Your task to perform on an android device: Clear the shopping cart on newegg.com. Add corsair k70 to the cart on newegg.com, then select checkout. Image 0: 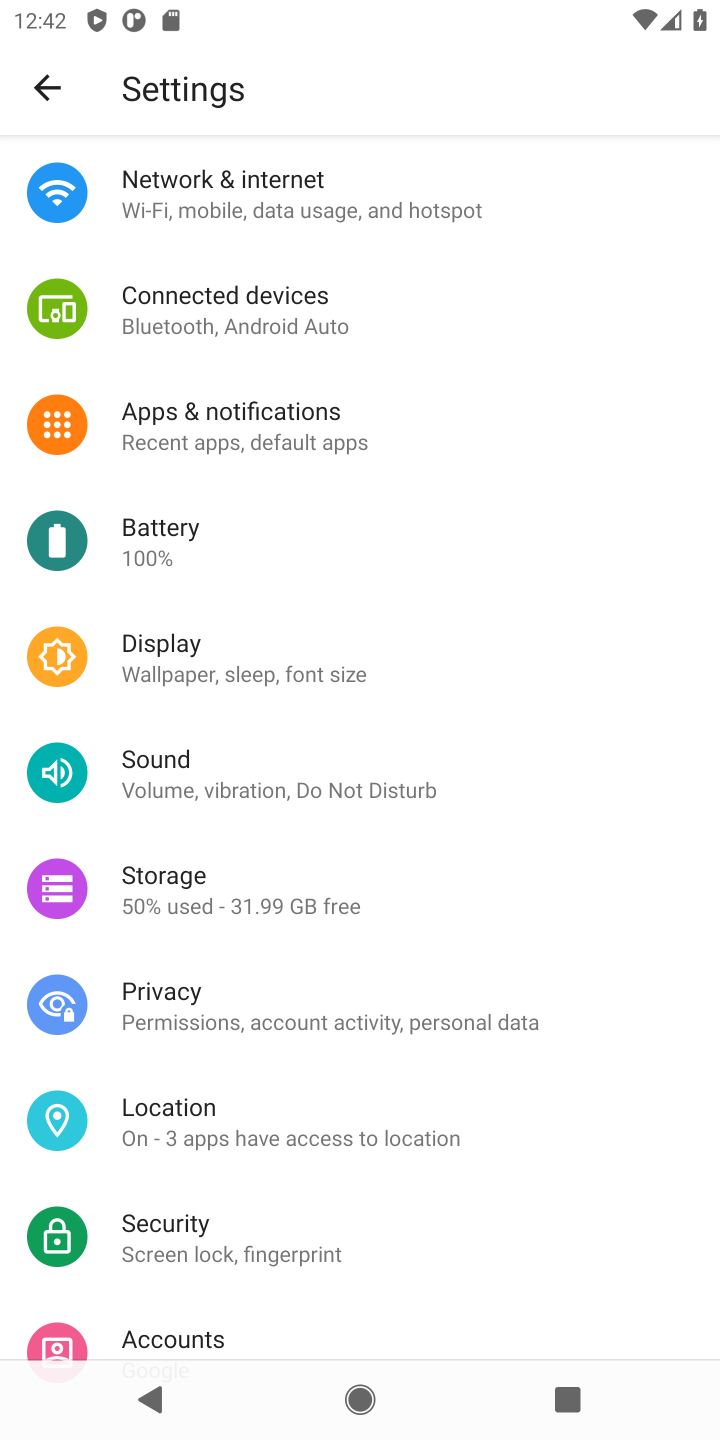
Step 0: press home button
Your task to perform on an android device: Clear the shopping cart on newegg.com. Add corsair k70 to the cart on newegg.com, then select checkout. Image 1: 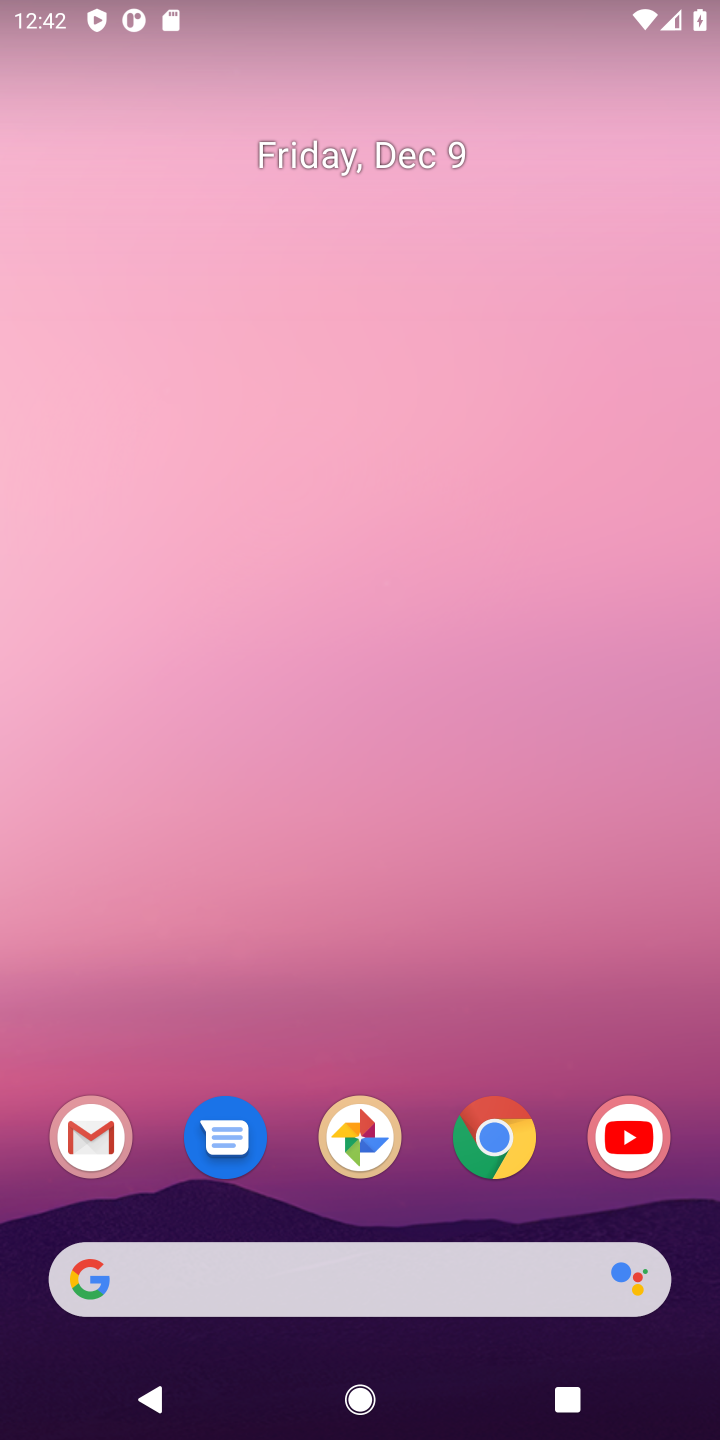
Step 1: click (496, 1139)
Your task to perform on an android device: Clear the shopping cart on newegg.com. Add corsair k70 to the cart on newegg.com, then select checkout. Image 2: 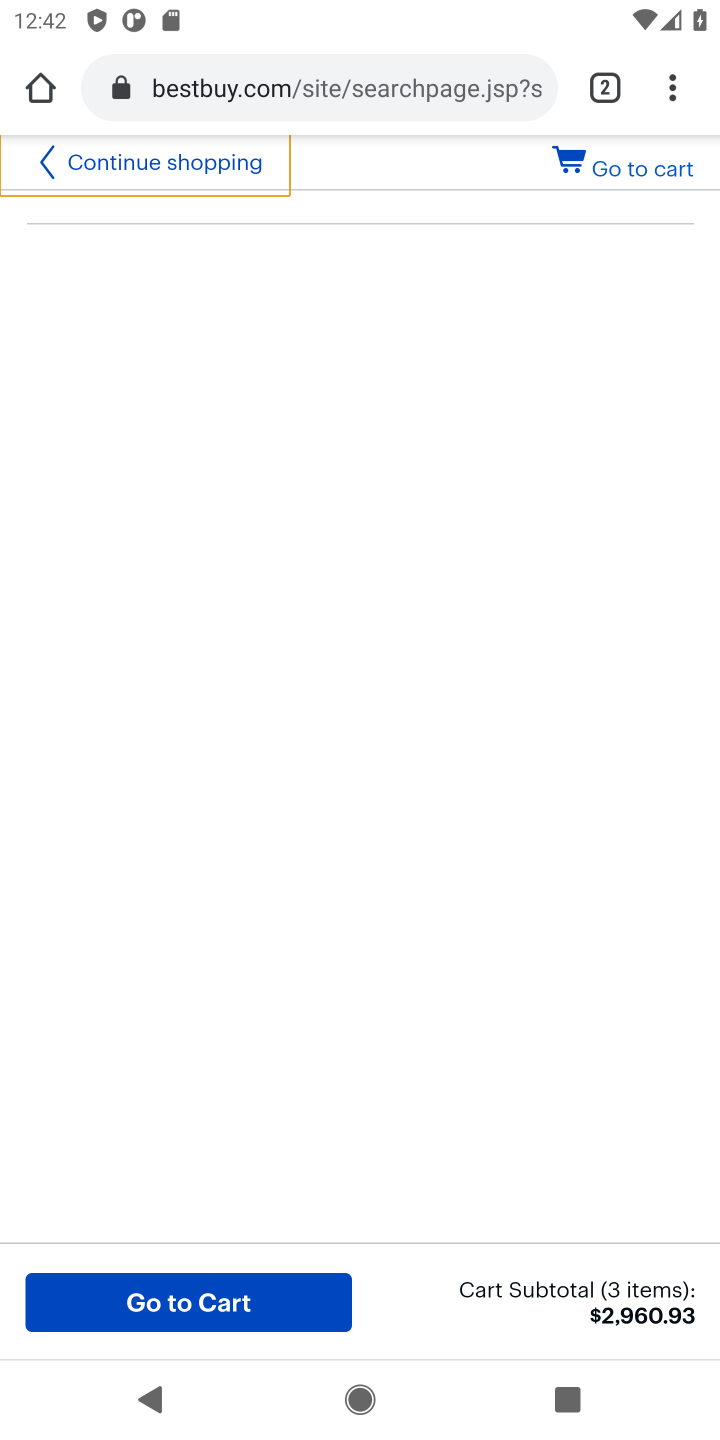
Step 2: click (355, 80)
Your task to perform on an android device: Clear the shopping cart on newegg.com. Add corsair k70 to the cart on newegg.com, then select checkout. Image 3: 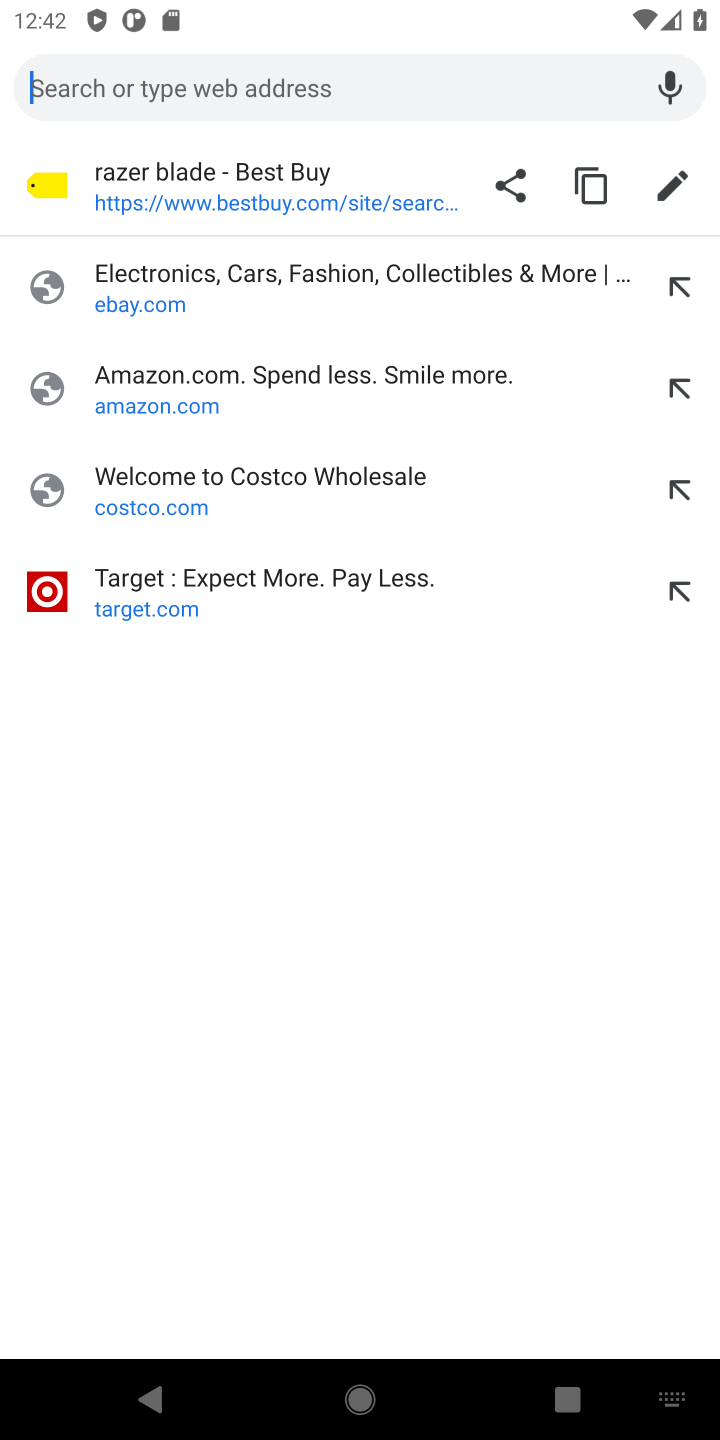
Step 3: type "NEWEGG"
Your task to perform on an android device: Clear the shopping cart on newegg.com. Add corsair k70 to the cart on newegg.com, then select checkout. Image 4: 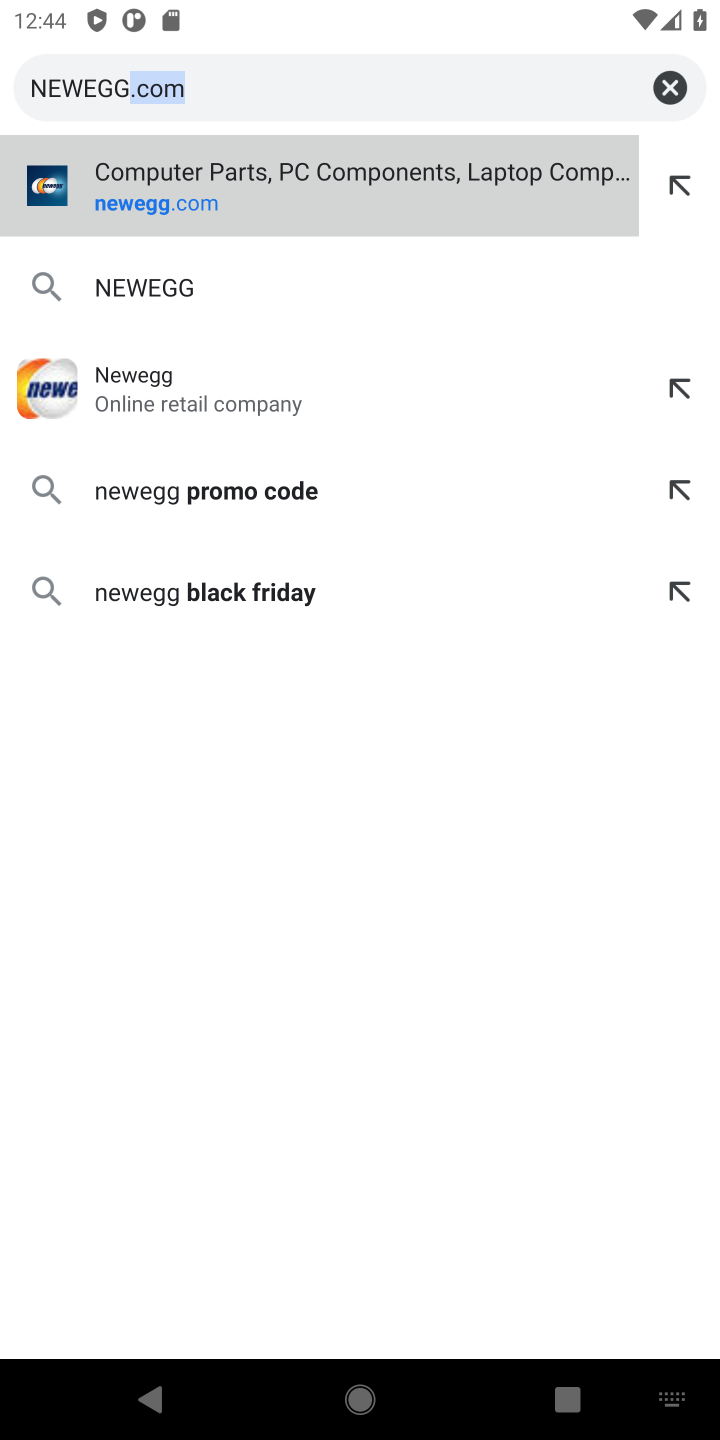
Step 4: click (211, 182)
Your task to perform on an android device: Clear the shopping cart on newegg.com. Add corsair k70 to the cart on newegg.com, then select checkout. Image 5: 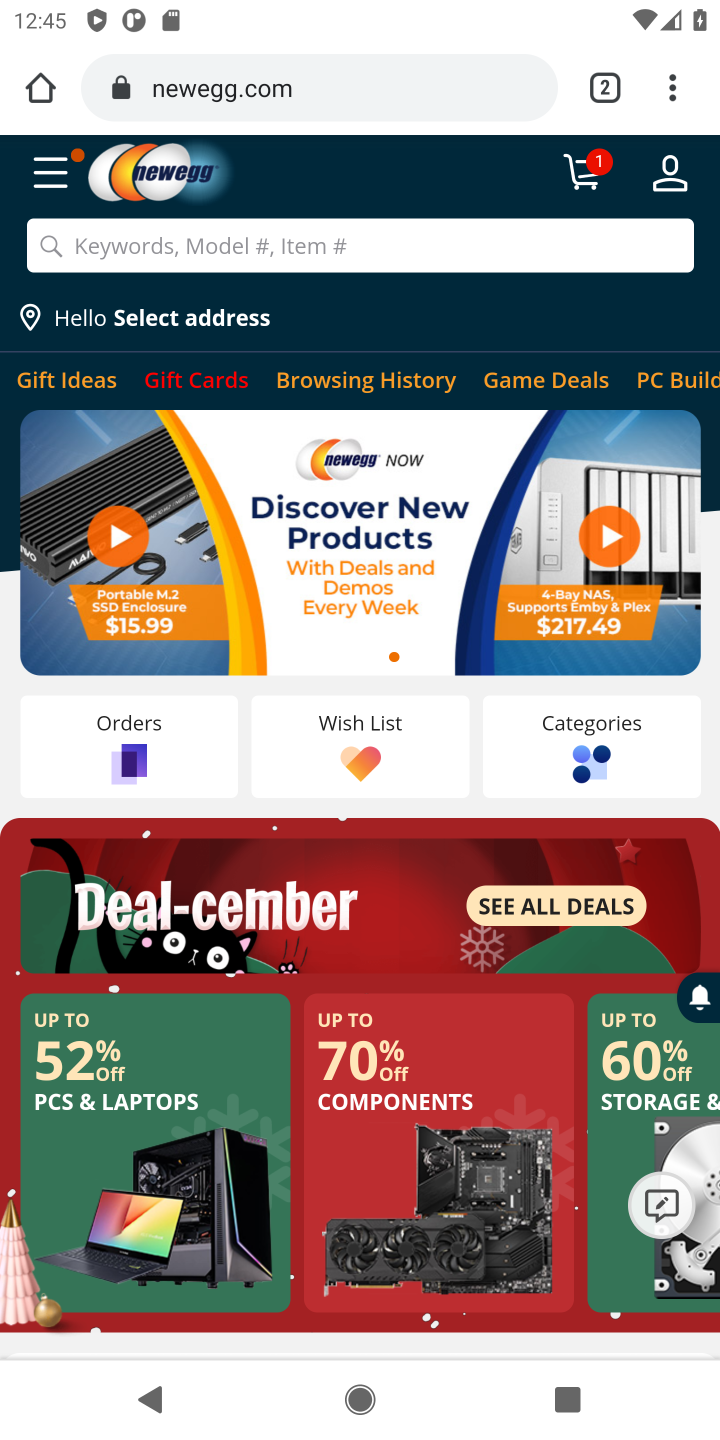
Step 5: click (151, 249)
Your task to perform on an android device: Clear the shopping cart on newegg.com. Add corsair k70 to the cart on newegg.com, then select checkout. Image 6: 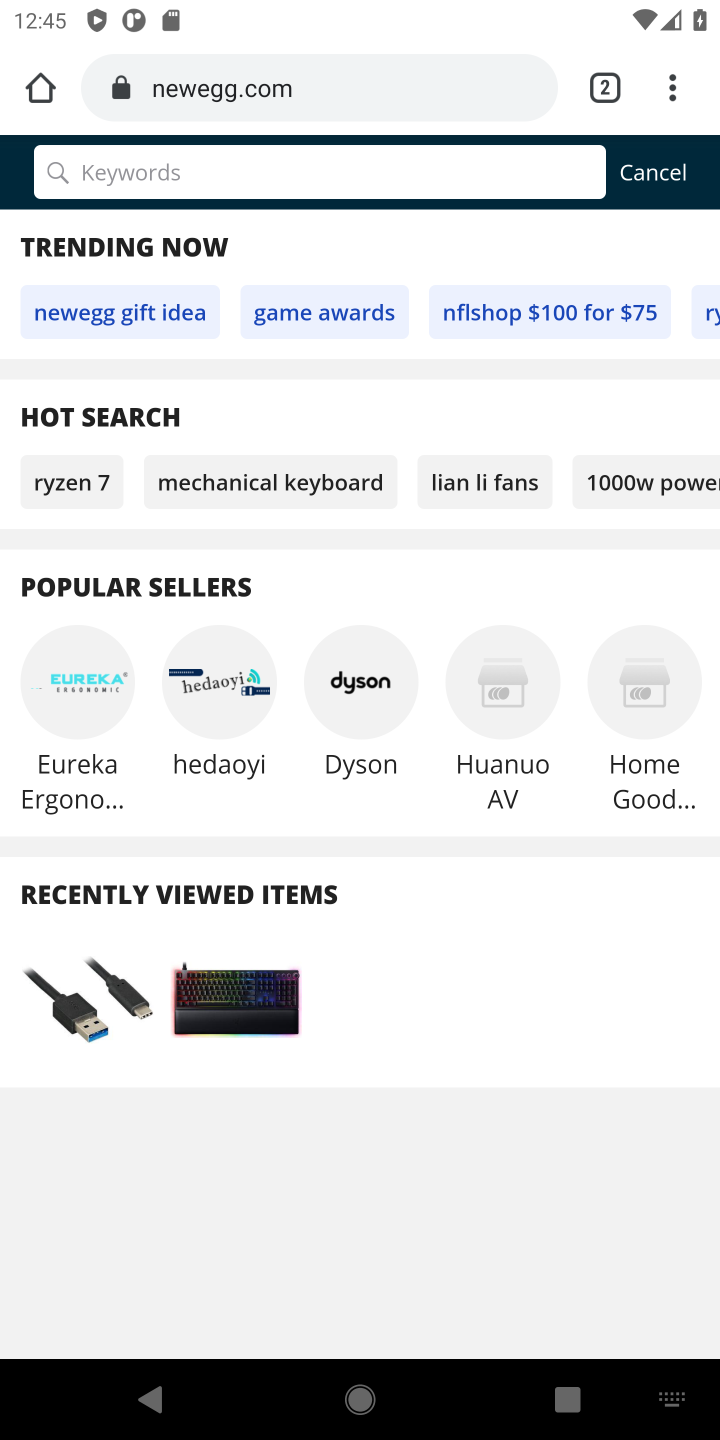
Step 6: click (591, 172)
Your task to perform on an android device: Clear the shopping cart on newegg.com. Add corsair k70 to the cart on newegg.com, then select checkout. Image 7: 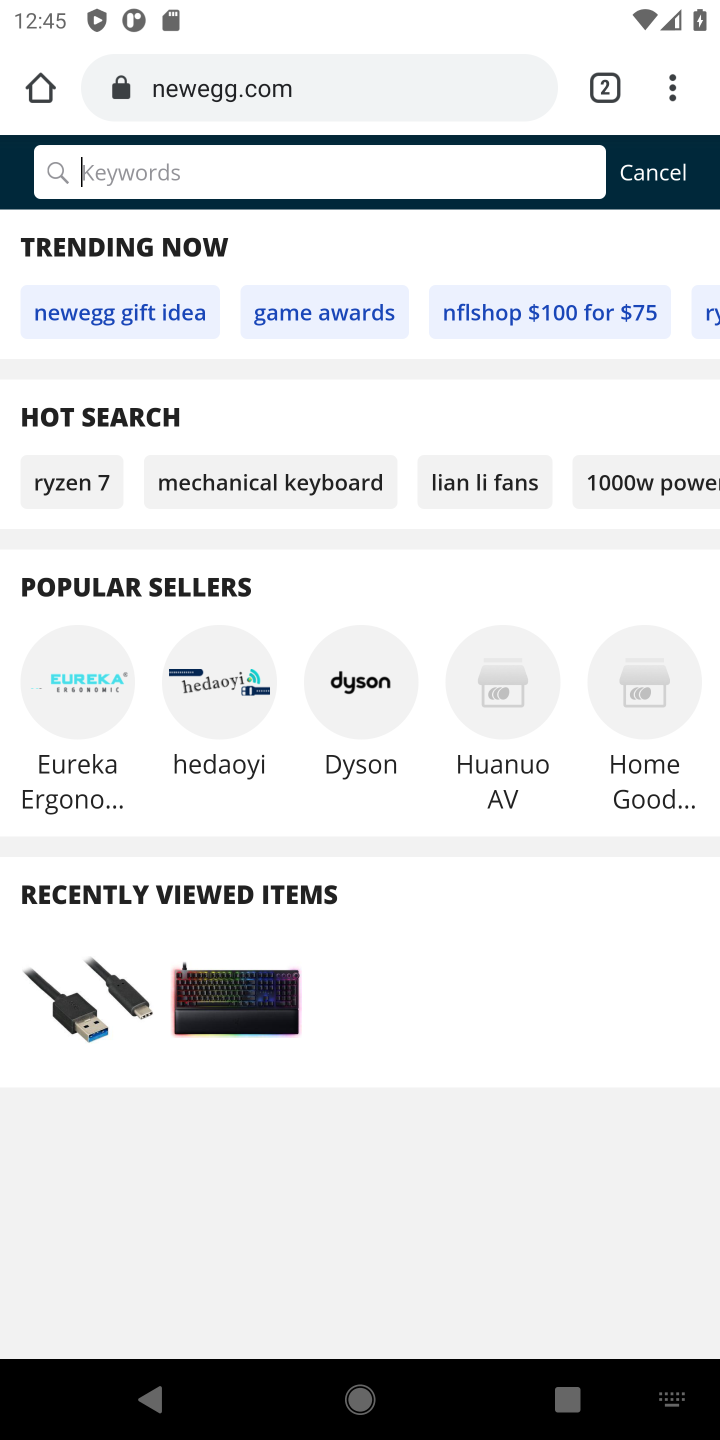
Step 7: click (657, 178)
Your task to perform on an android device: Clear the shopping cart on newegg.com. Add corsair k70 to the cart on newegg.com, then select checkout. Image 8: 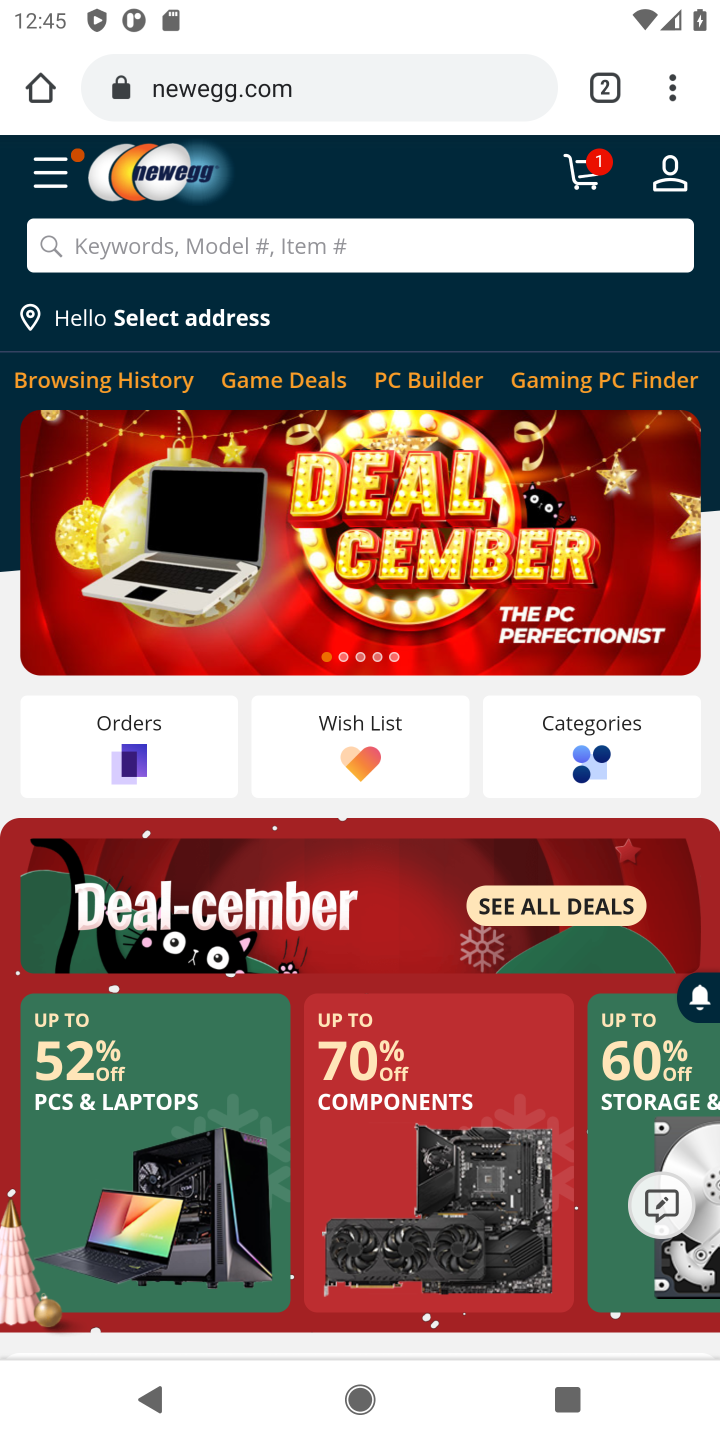
Step 8: click (579, 175)
Your task to perform on an android device: Clear the shopping cart on newegg.com. Add corsair k70 to the cart on newegg.com, then select checkout. Image 9: 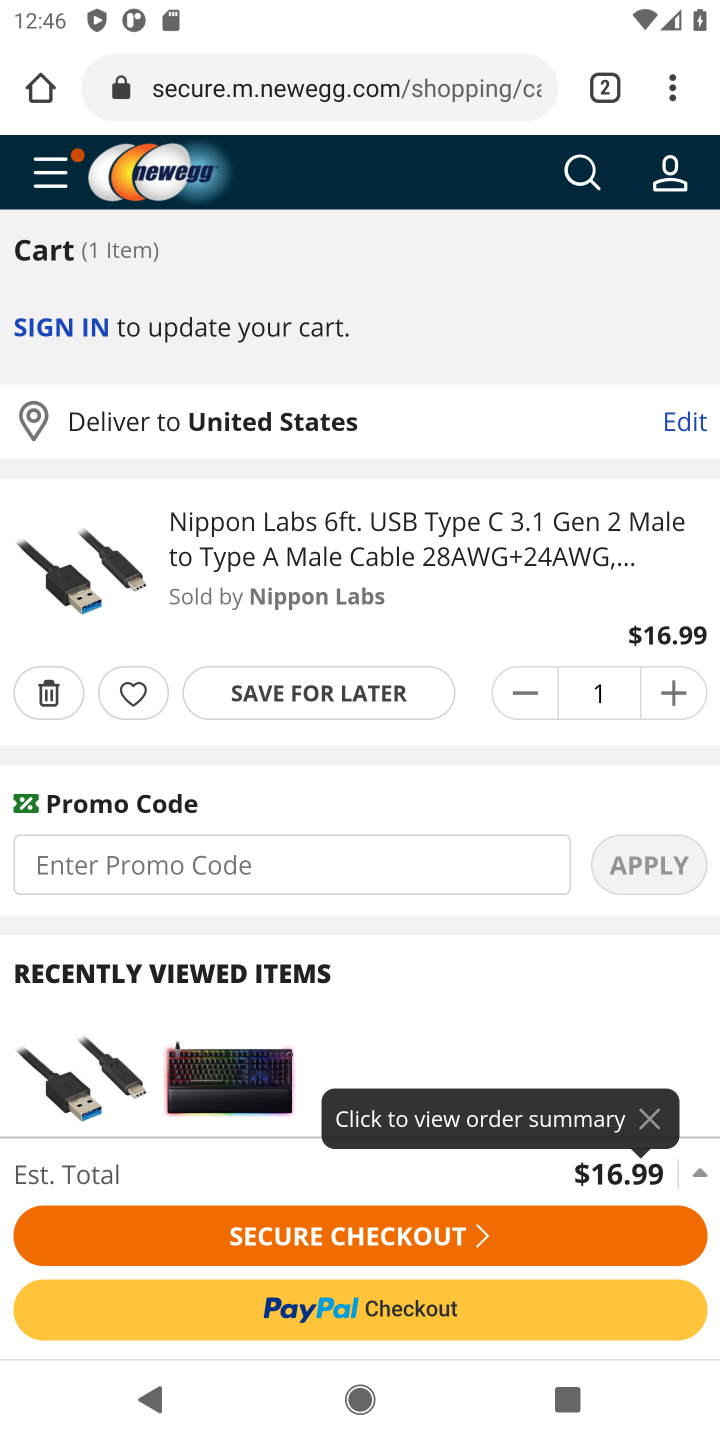
Step 9: click (54, 694)
Your task to perform on an android device: Clear the shopping cart on newegg.com. Add corsair k70 to the cart on newegg.com, then select checkout. Image 10: 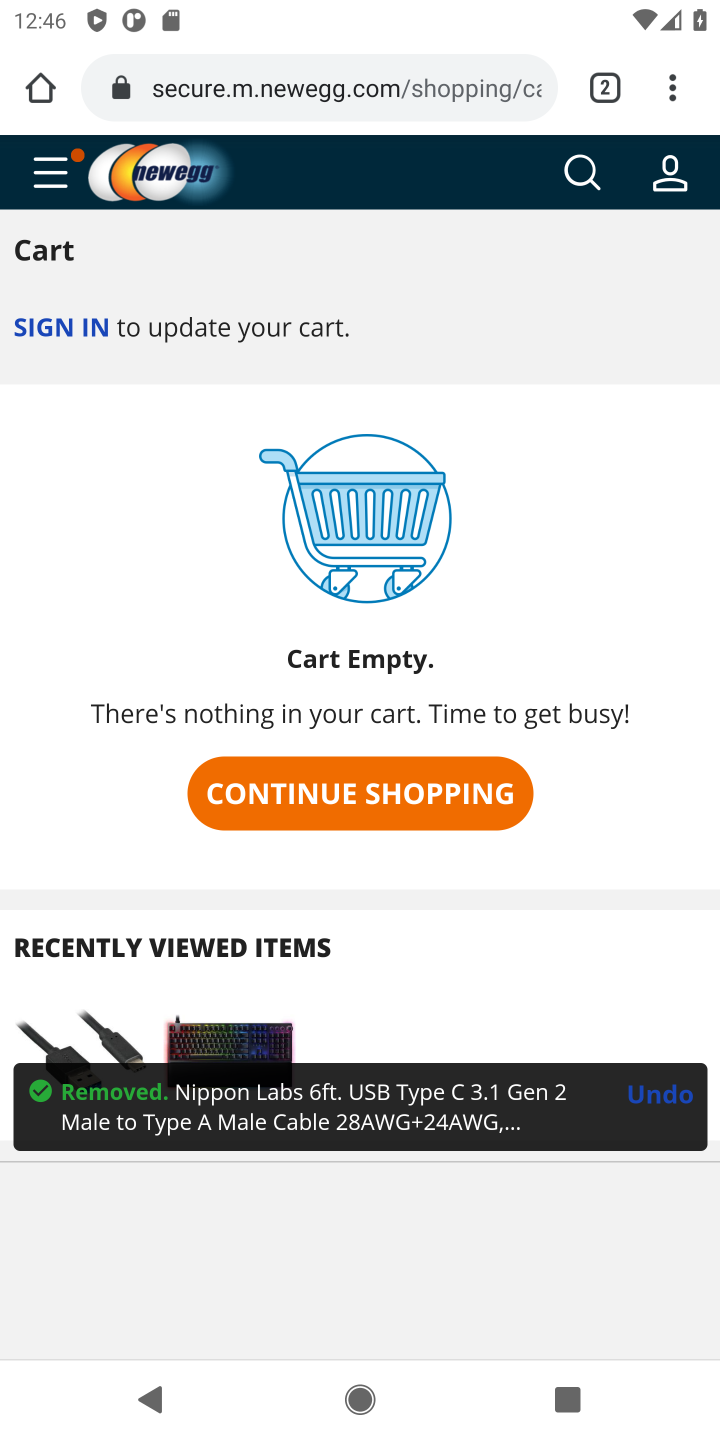
Step 10: click (570, 170)
Your task to perform on an android device: Clear the shopping cart on newegg.com. Add corsair k70 to the cart on newegg.com, then select checkout. Image 11: 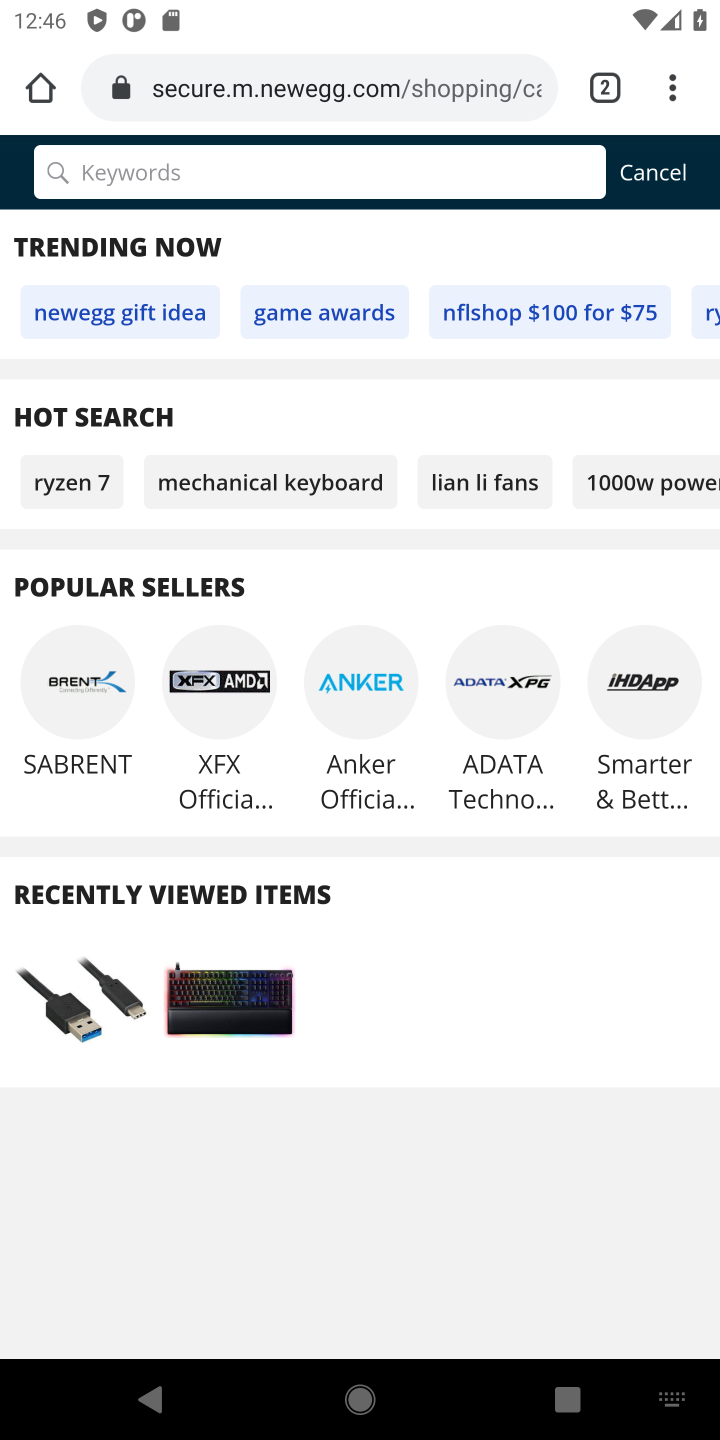
Step 11: type "CORSAIR K70"
Your task to perform on an android device: Clear the shopping cart on newegg.com. Add corsair k70 to the cart on newegg.com, then select checkout. Image 12: 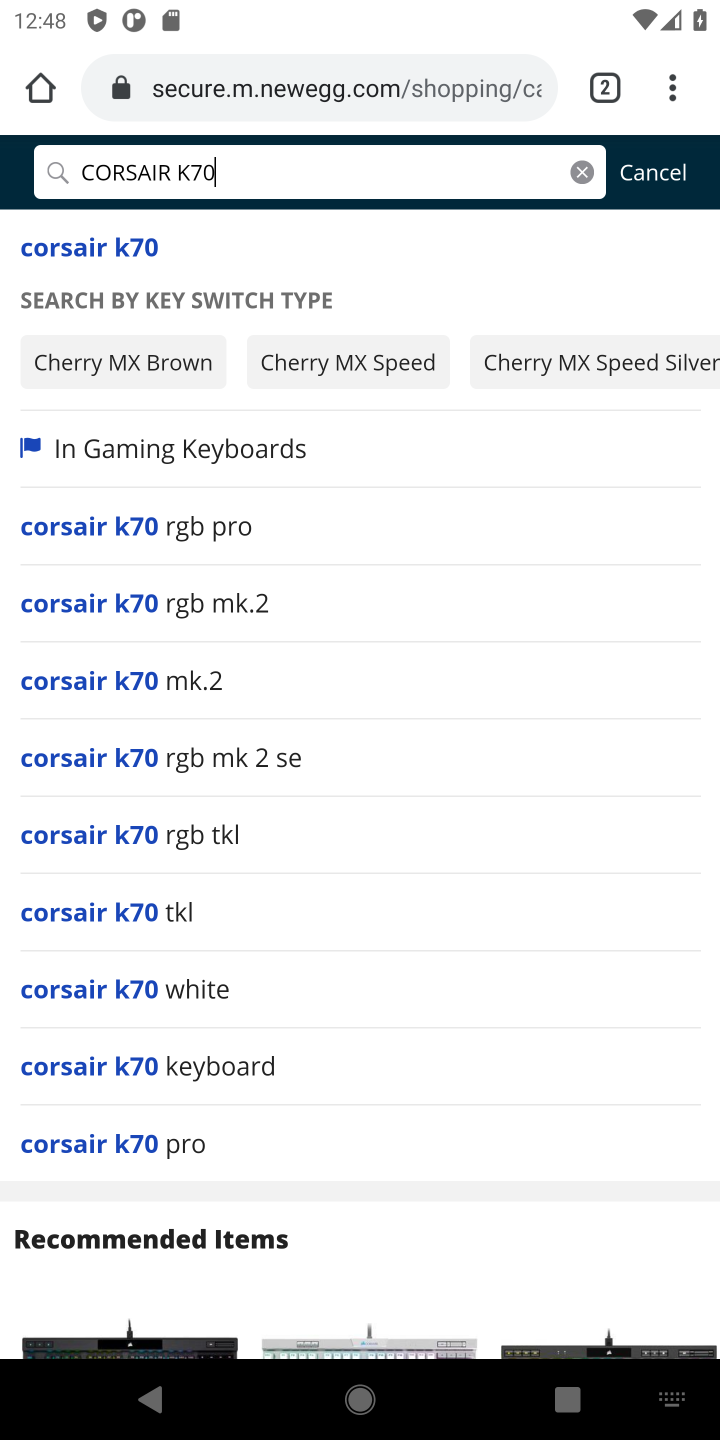
Step 12: task complete